Your task to perform on an android device: Open privacy settings Image 0: 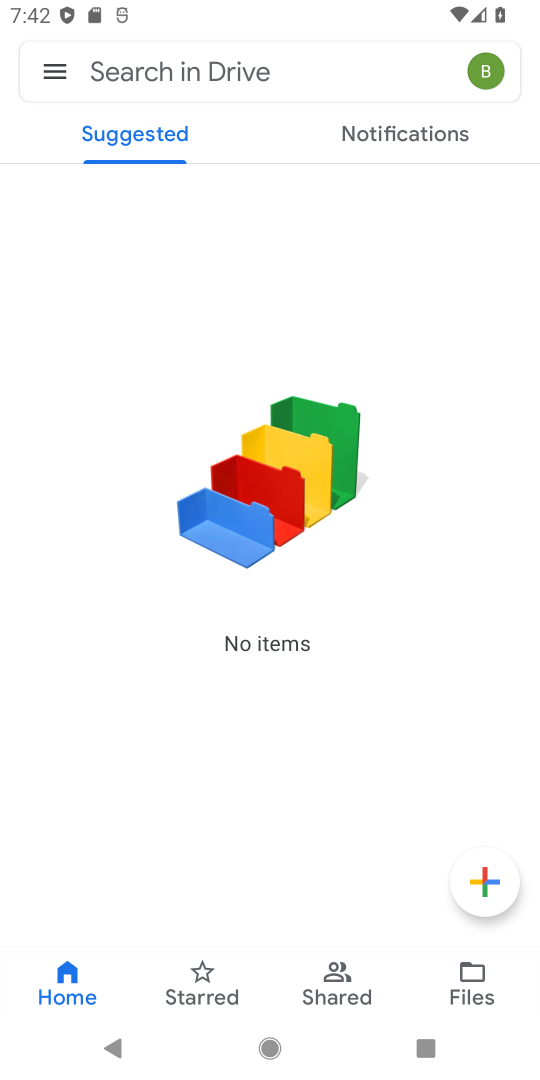
Step 0: press home button
Your task to perform on an android device: Open privacy settings Image 1: 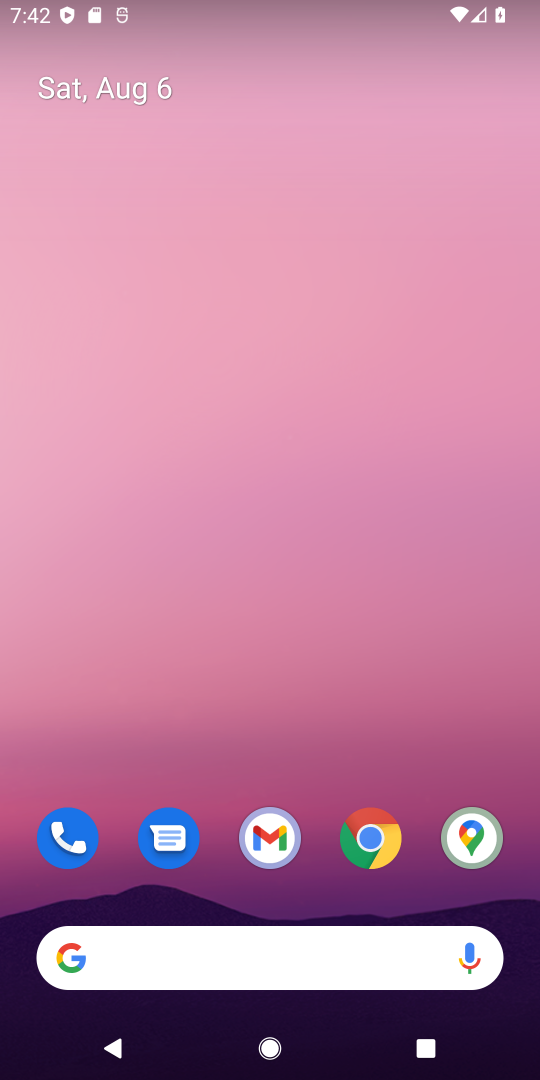
Step 1: drag from (289, 608) to (289, 121)
Your task to perform on an android device: Open privacy settings Image 2: 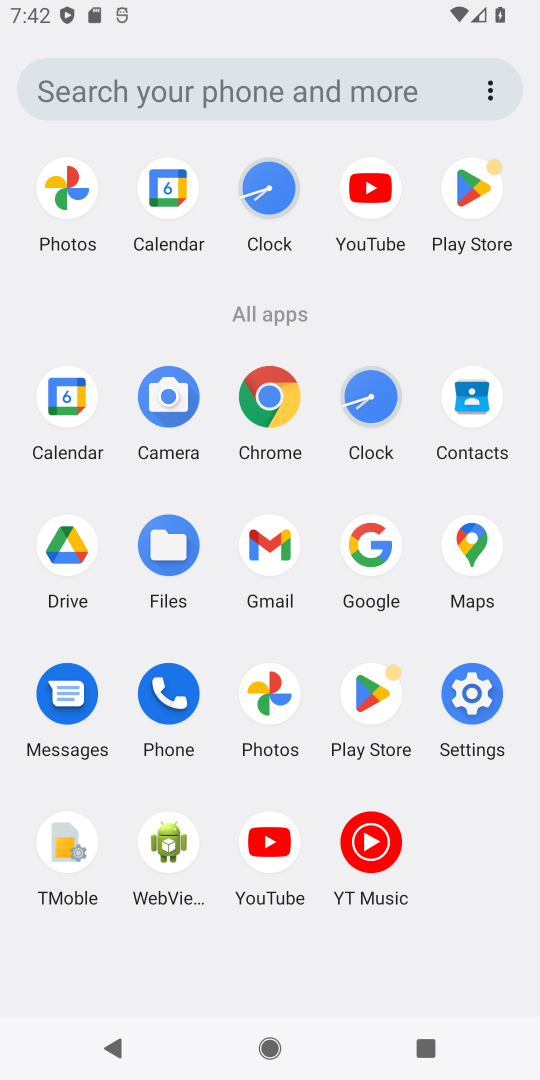
Step 2: click (465, 701)
Your task to perform on an android device: Open privacy settings Image 3: 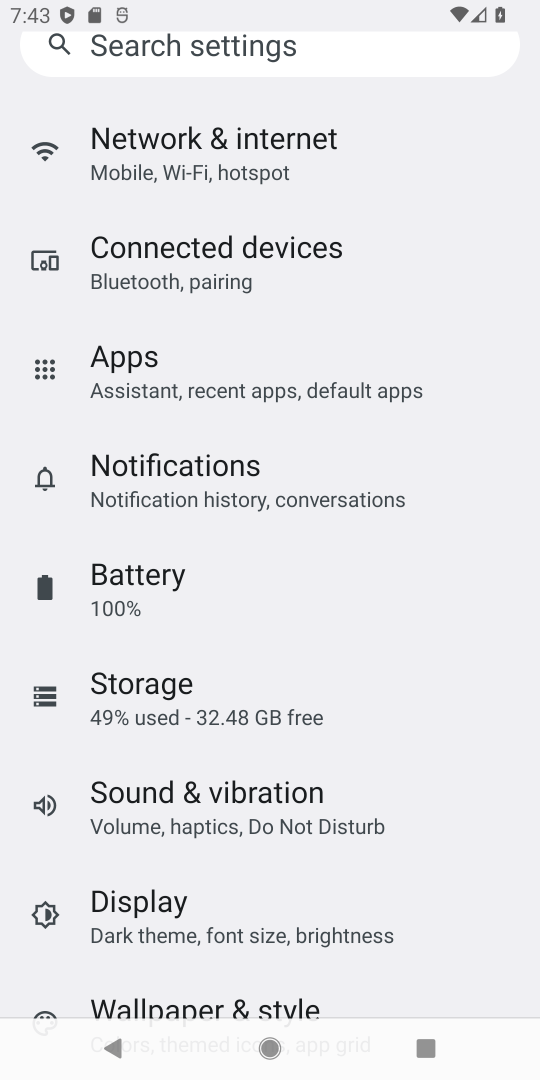
Step 3: drag from (168, 895) to (271, 98)
Your task to perform on an android device: Open privacy settings Image 4: 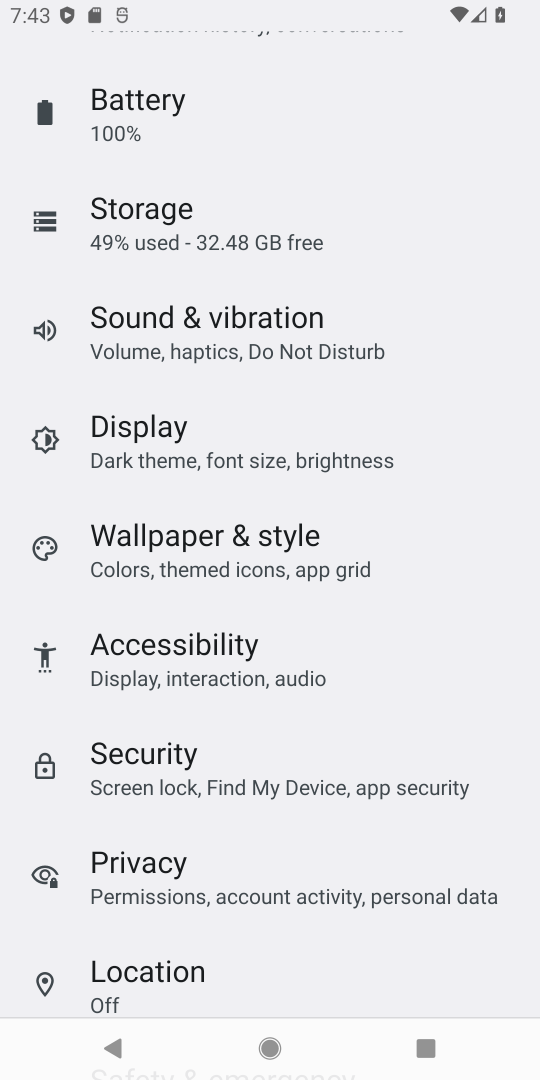
Step 4: click (119, 885)
Your task to perform on an android device: Open privacy settings Image 5: 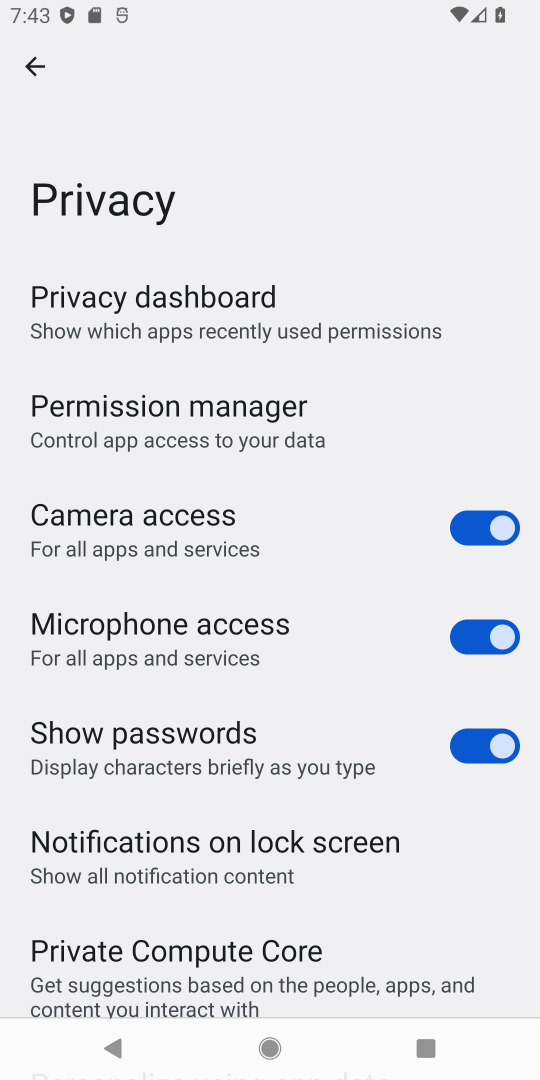
Step 5: task complete